Your task to perform on an android device: Add "duracell triple a" to the cart on amazon.com, then select checkout. Image 0: 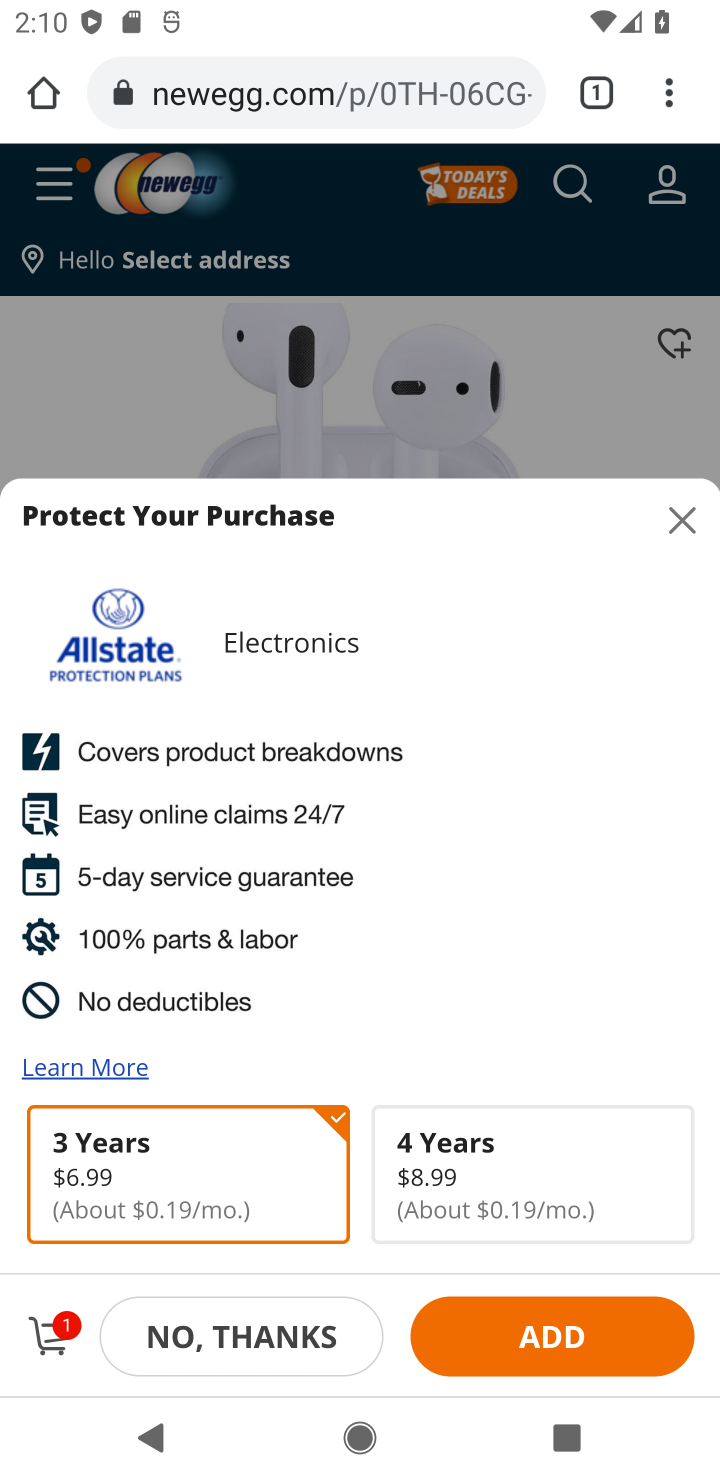
Step 0: click (538, 579)
Your task to perform on an android device: Add "duracell triple a" to the cart on amazon.com, then select checkout. Image 1: 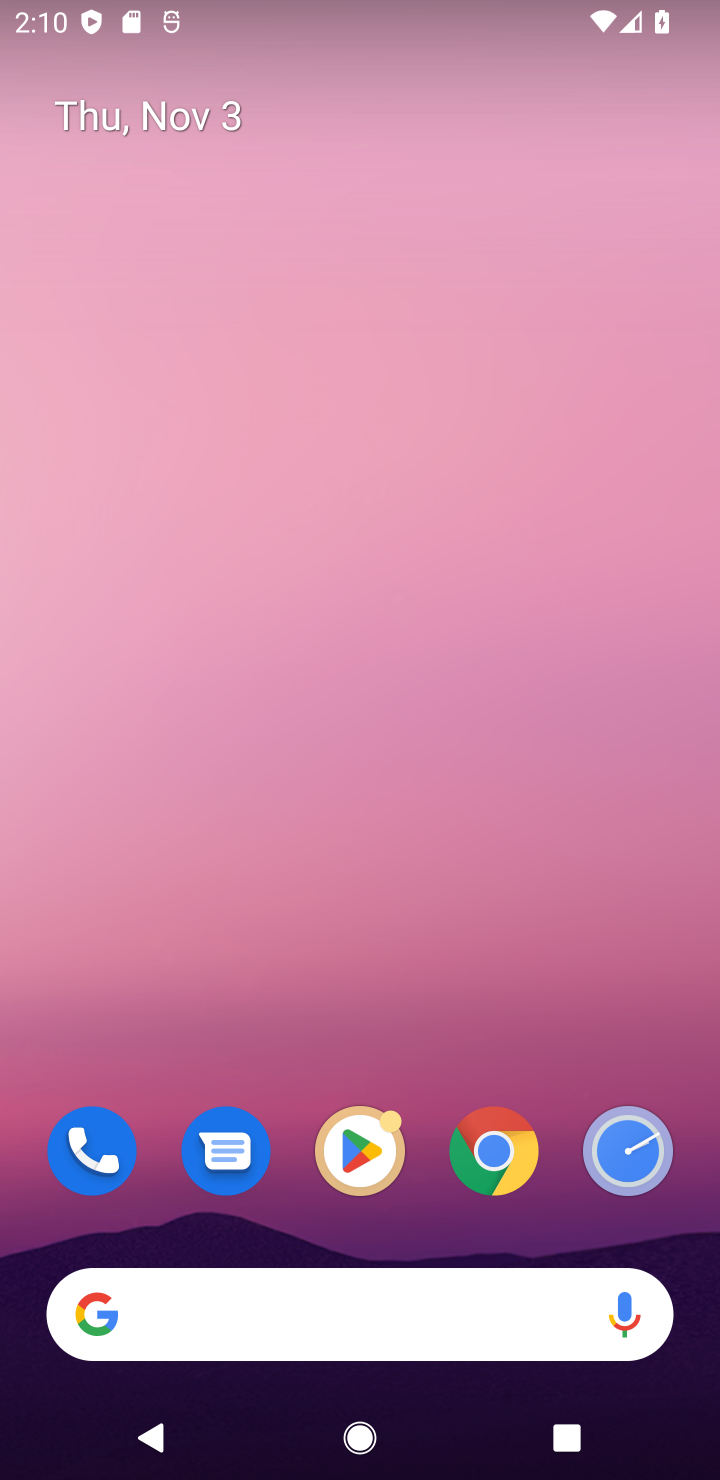
Step 1: click (474, 1151)
Your task to perform on an android device: Add "duracell triple a" to the cart on amazon.com, then select checkout. Image 2: 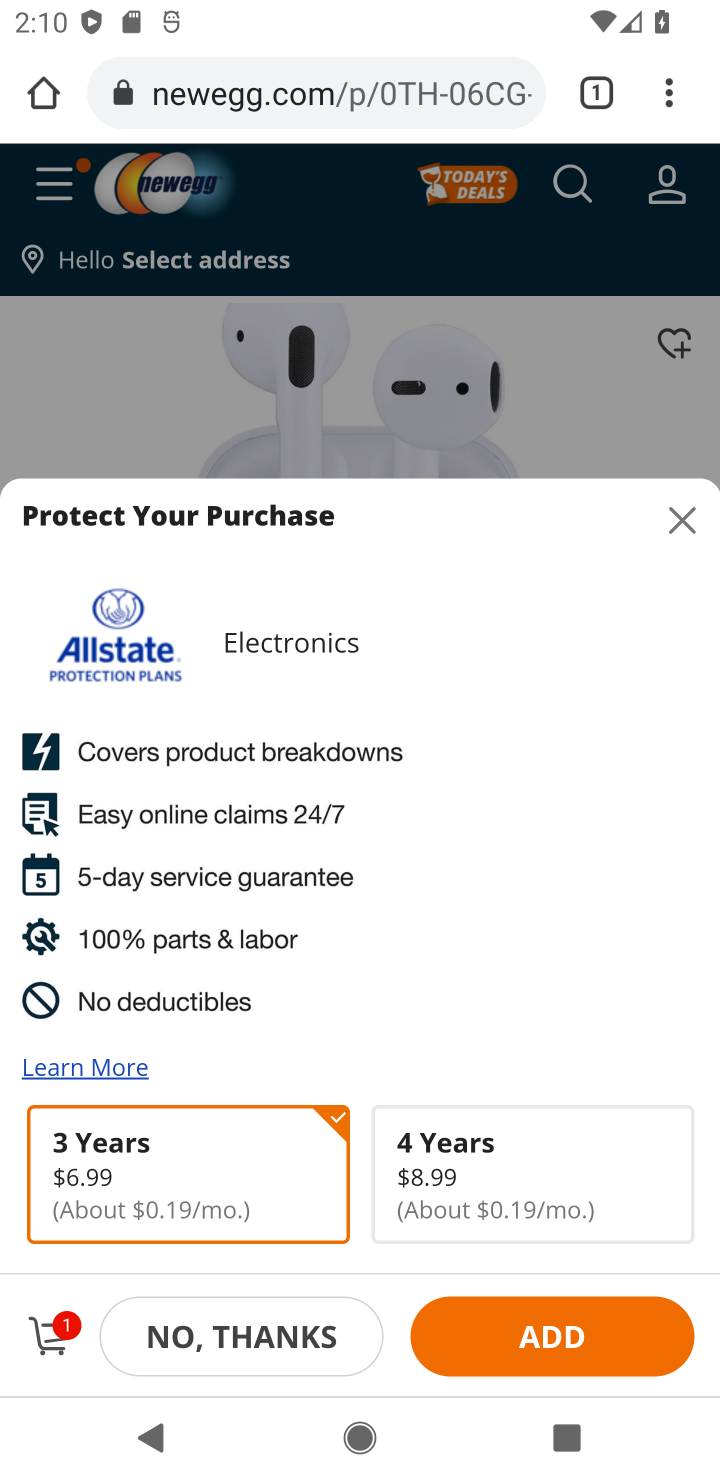
Step 2: click (317, 84)
Your task to perform on an android device: Add "duracell triple a" to the cart on amazon.com, then select checkout. Image 3: 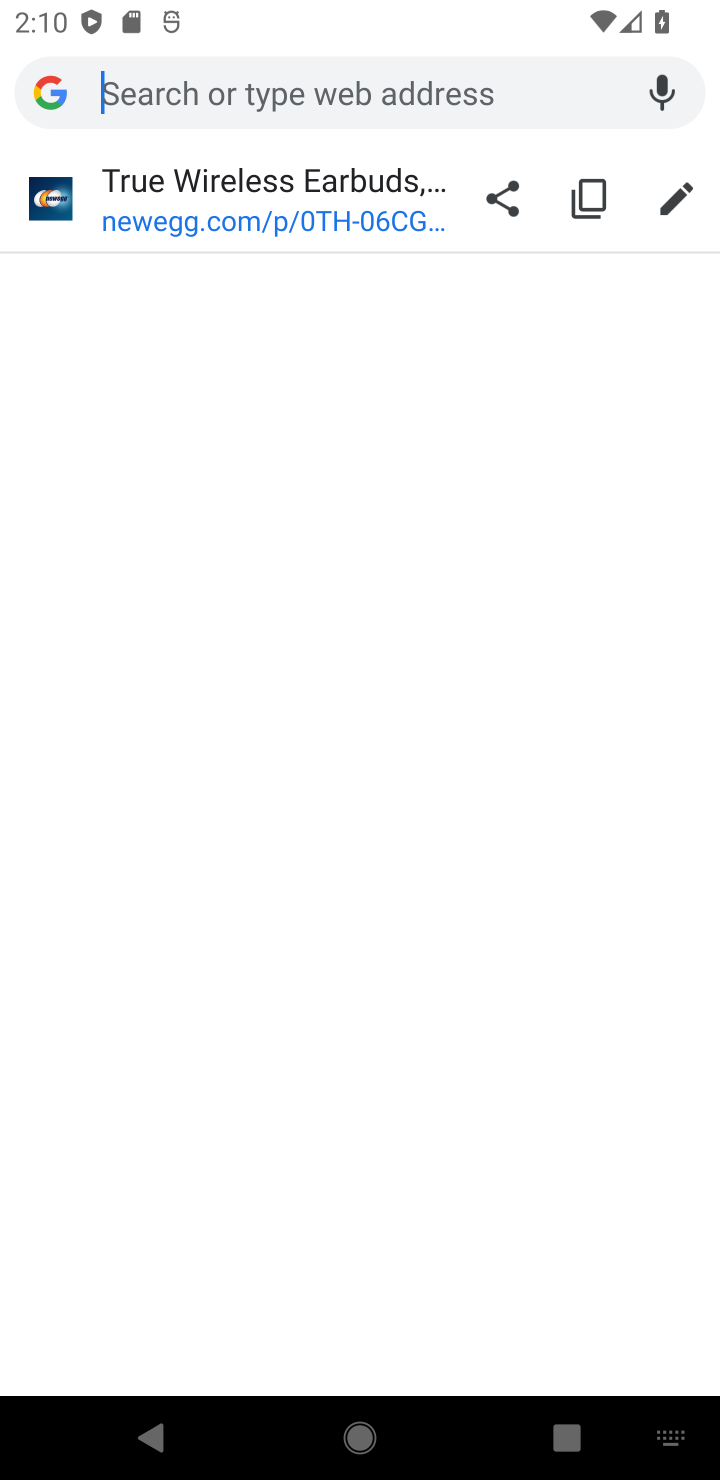
Step 3: type "amazon.com"
Your task to perform on an android device: Add "duracell triple a" to the cart on amazon.com, then select checkout. Image 4: 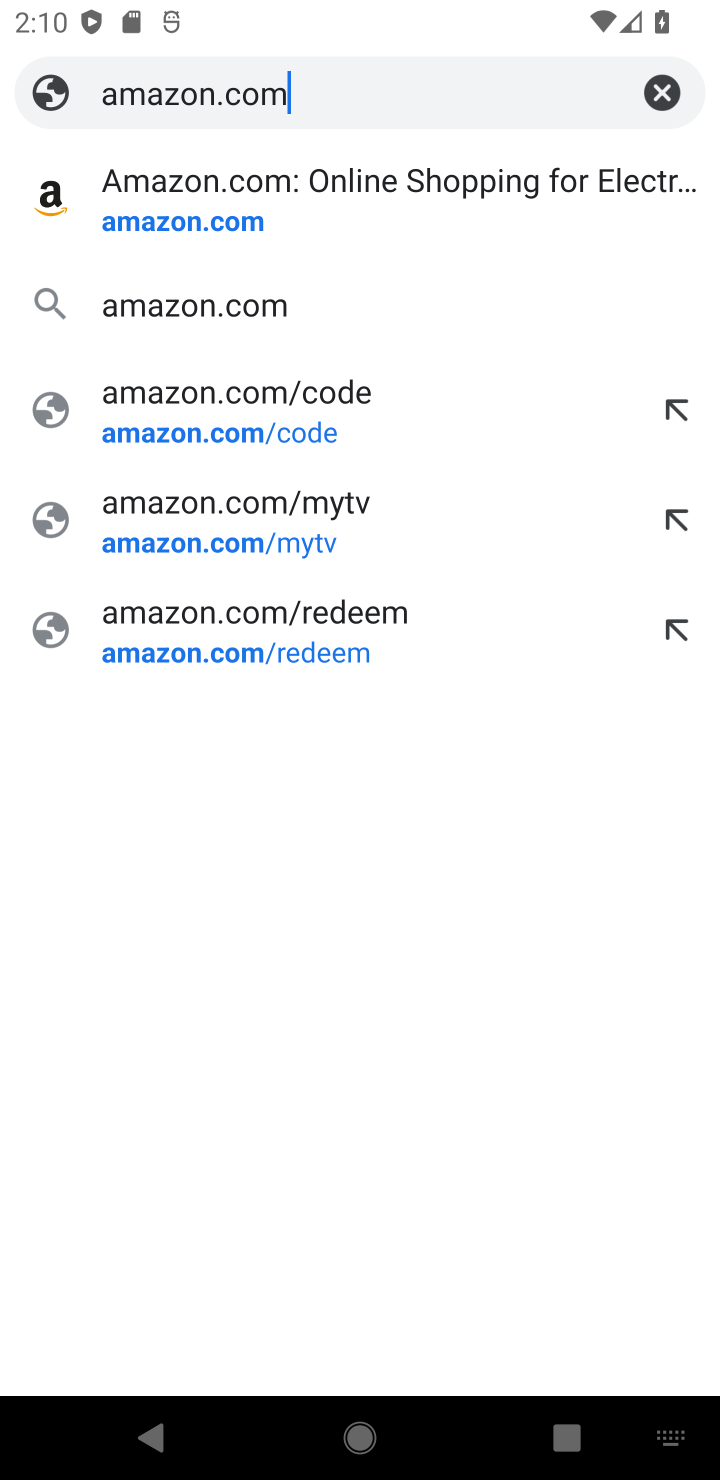
Step 4: click (325, 218)
Your task to perform on an android device: Add "duracell triple a" to the cart on amazon.com, then select checkout. Image 5: 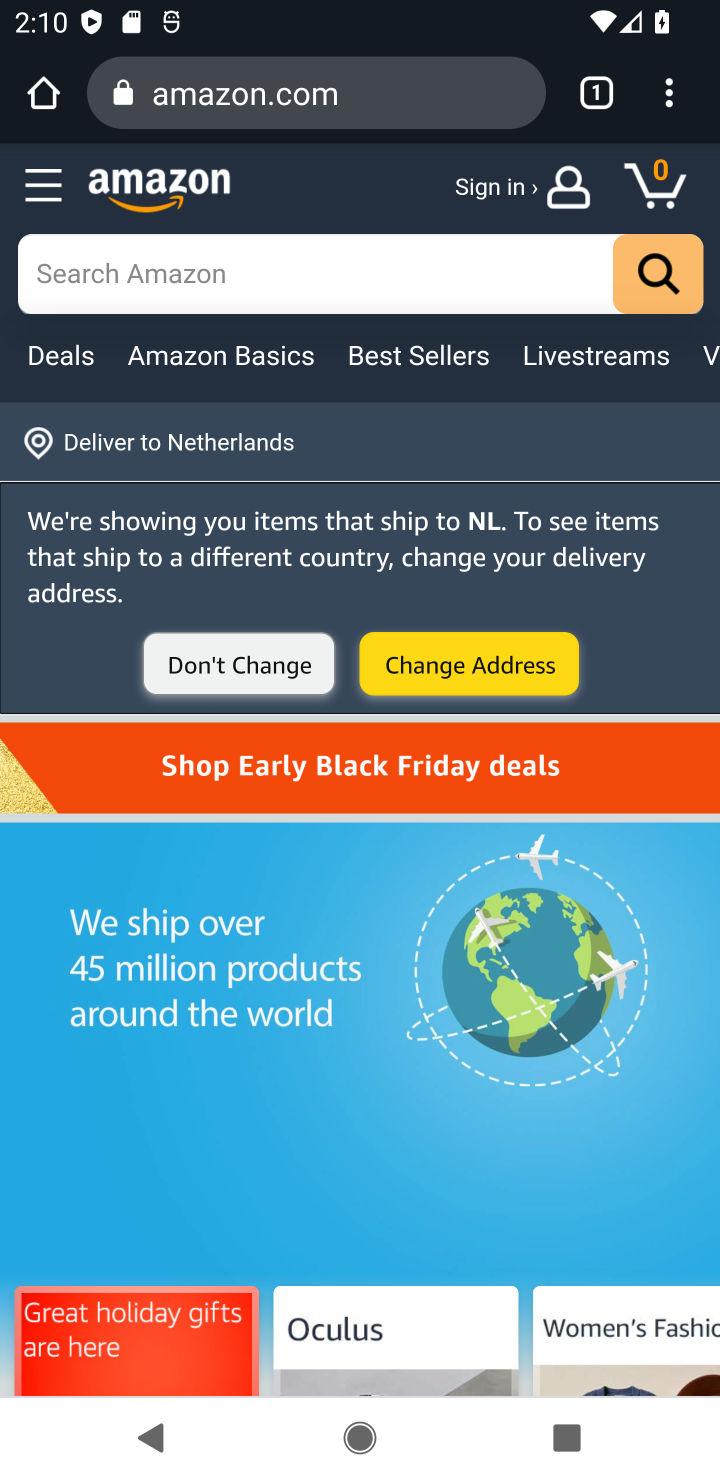
Step 5: click (254, 274)
Your task to perform on an android device: Add "duracell triple a" to the cart on amazon.com, then select checkout. Image 6: 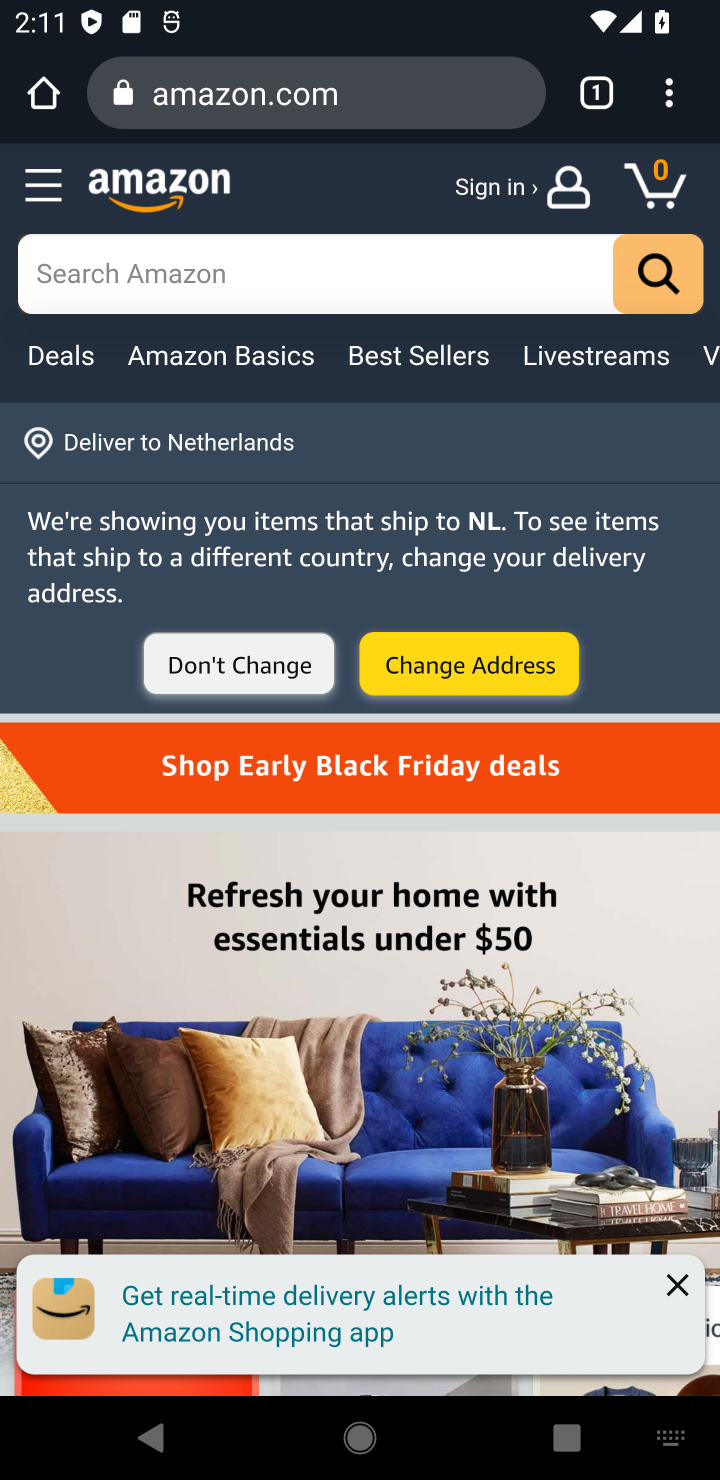
Step 6: type "duracell triple a"
Your task to perform on an android device: Add "duracell triple a" to the cart on amazon.com, then select checkout. Image 7: 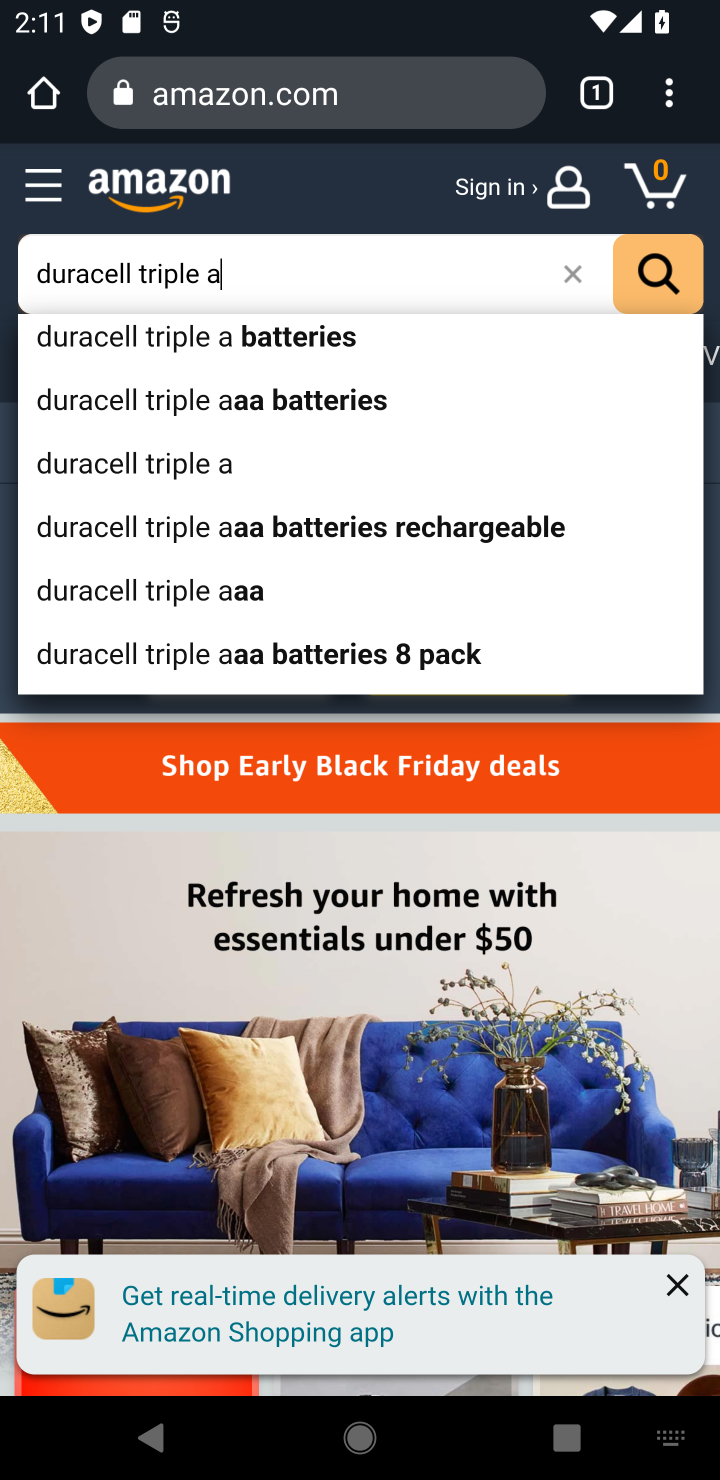
Step 7: click (171, 352)
Your task to perform on an android device: Add "duracell triple a" to the cart on amazon.com, then select checkout. Image 8: 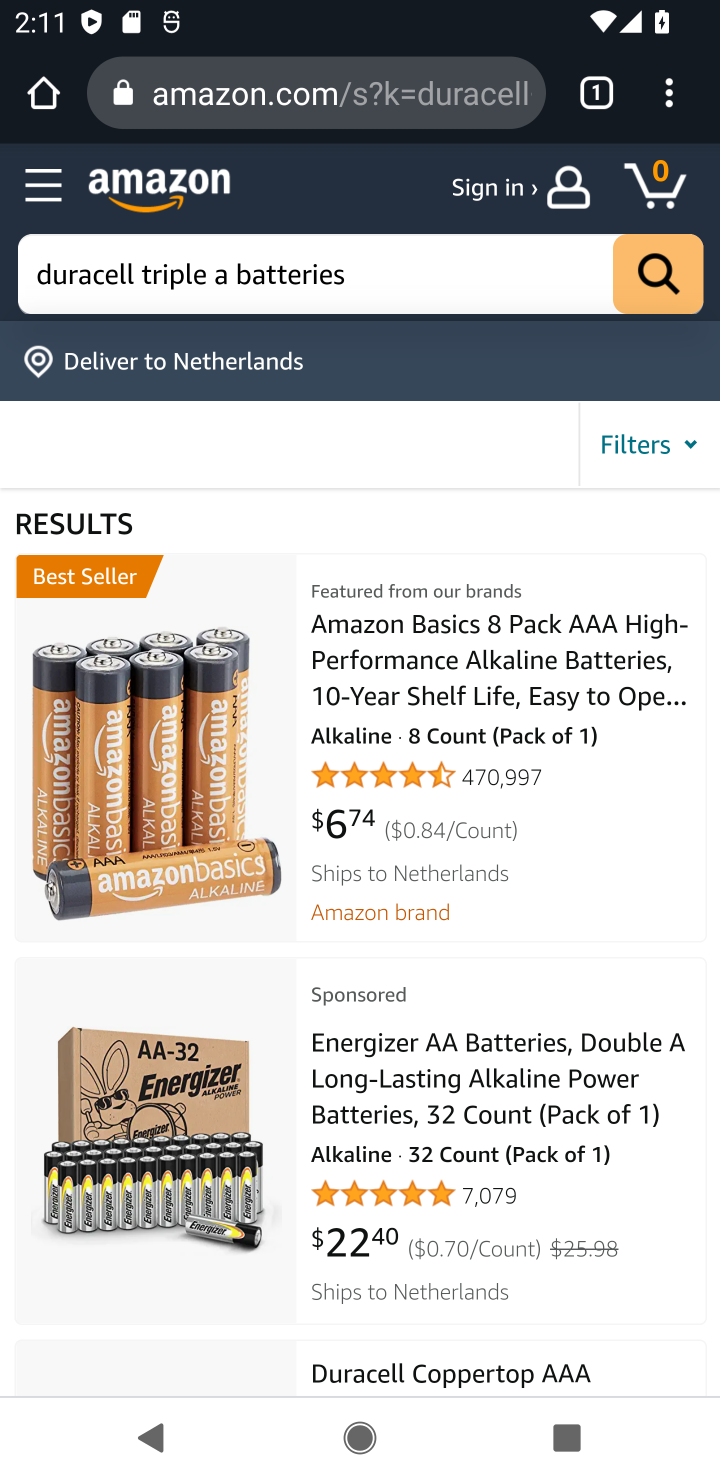
Step 8: click (410, 676)
Your task to perform on an android device: Add "duracell triple a" to the cart on amazon.com, then select checkout. Image 9: 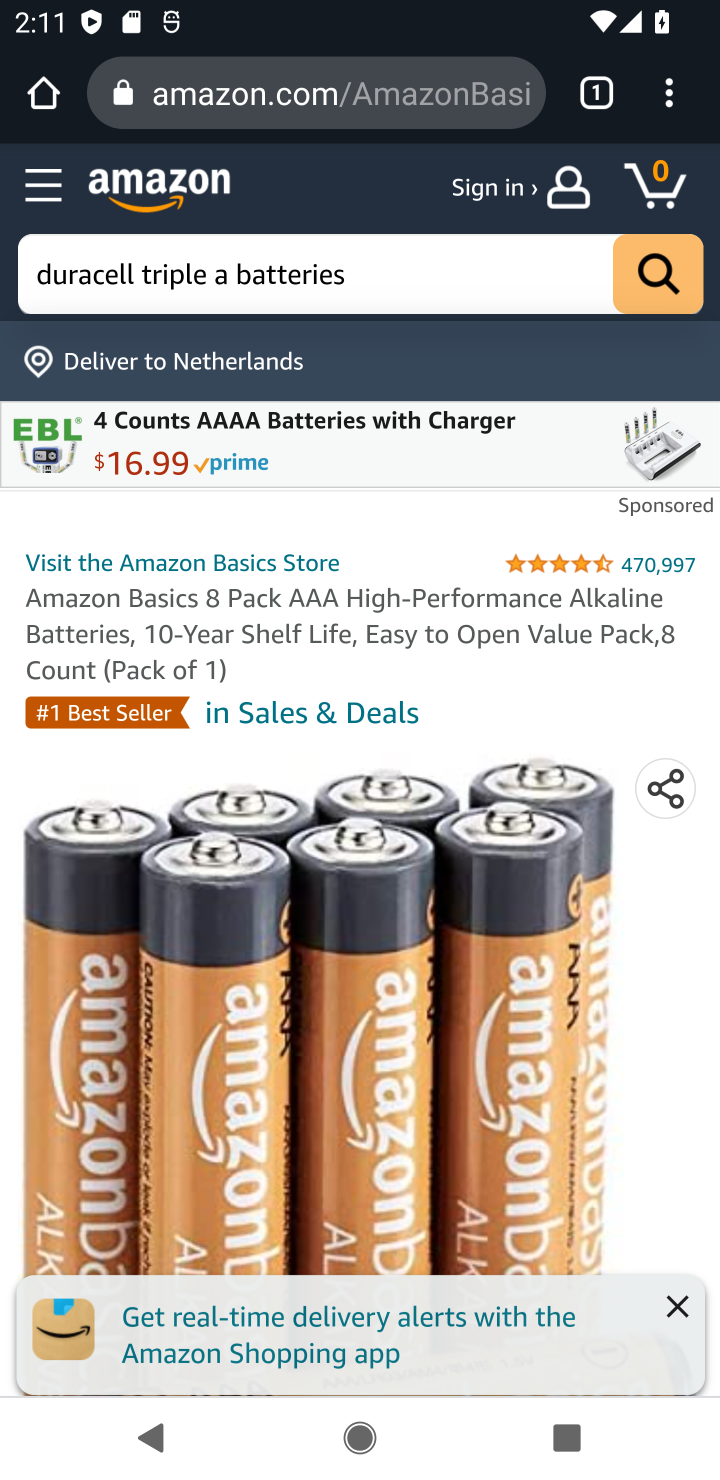
Step 9: drag from (444, 1103) to (415, 594)
Your task to perform on an android device: Add "duracell triple a" to the cart on amazon.com, then select checkout. Image 10: 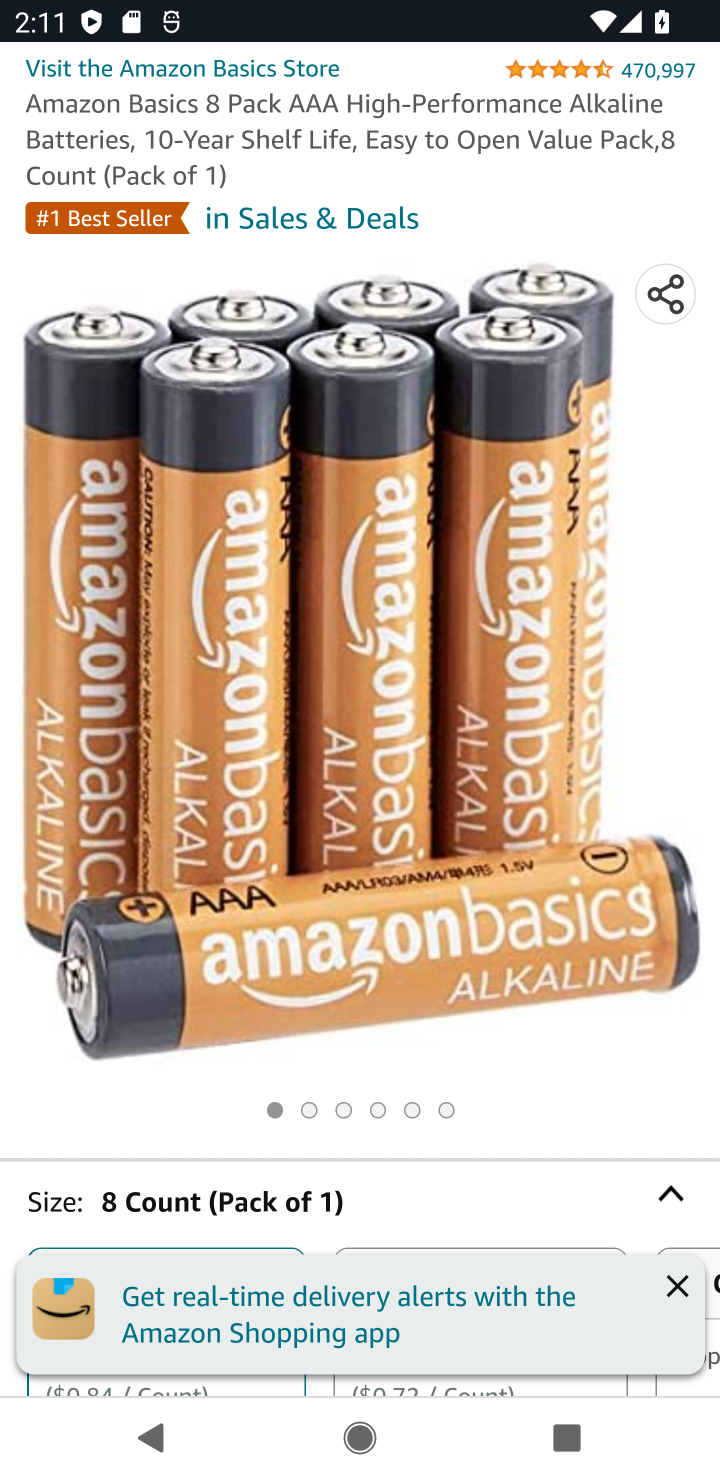
Step 10: drag from (344, 898) to (293, 445)
Your task to perform on an android device: Add "duracell triple a" to the cart on amazon.com, then select checkout. Image 11: 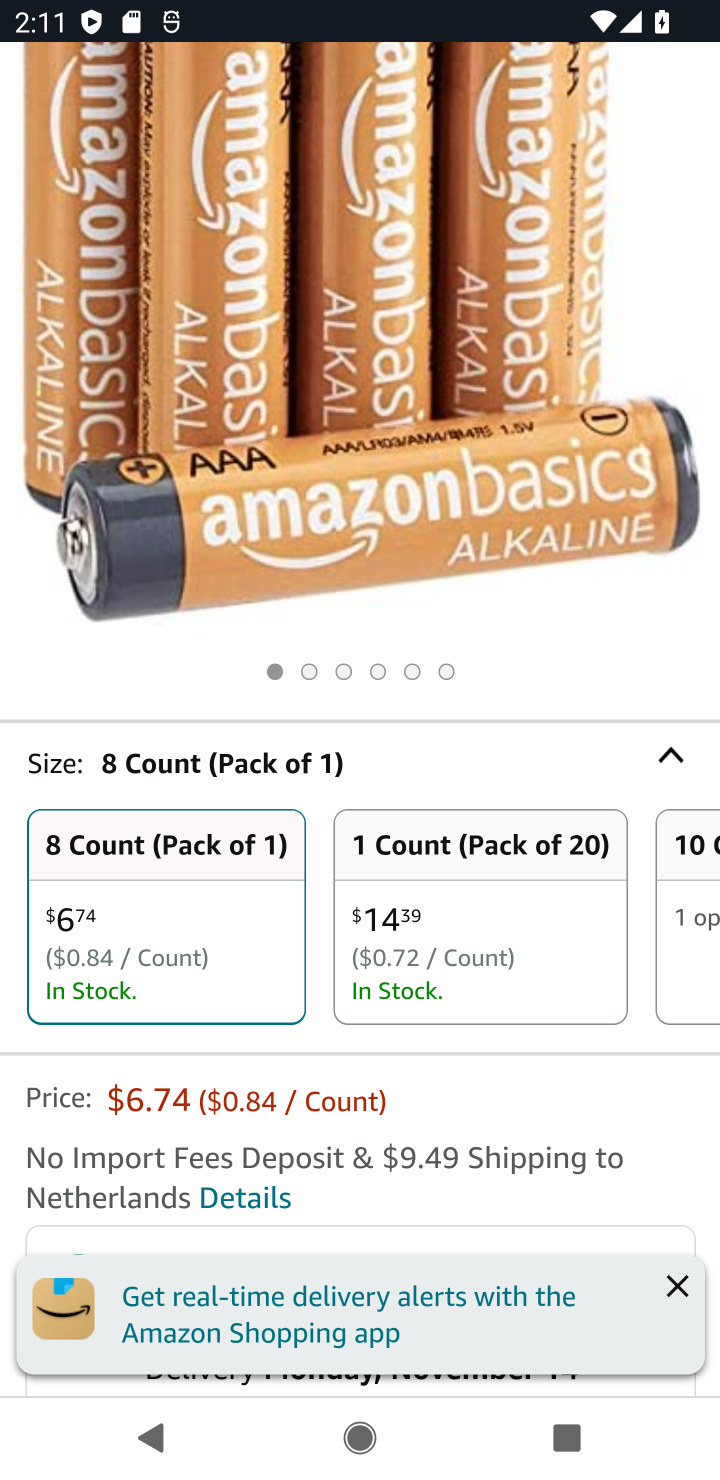
Step 11: drag from (406, 1182) to (375, 287)
Your task to perform on an android device: Add "duracell triple a" to the cart on amazon.com, then select checkout. Image 12: 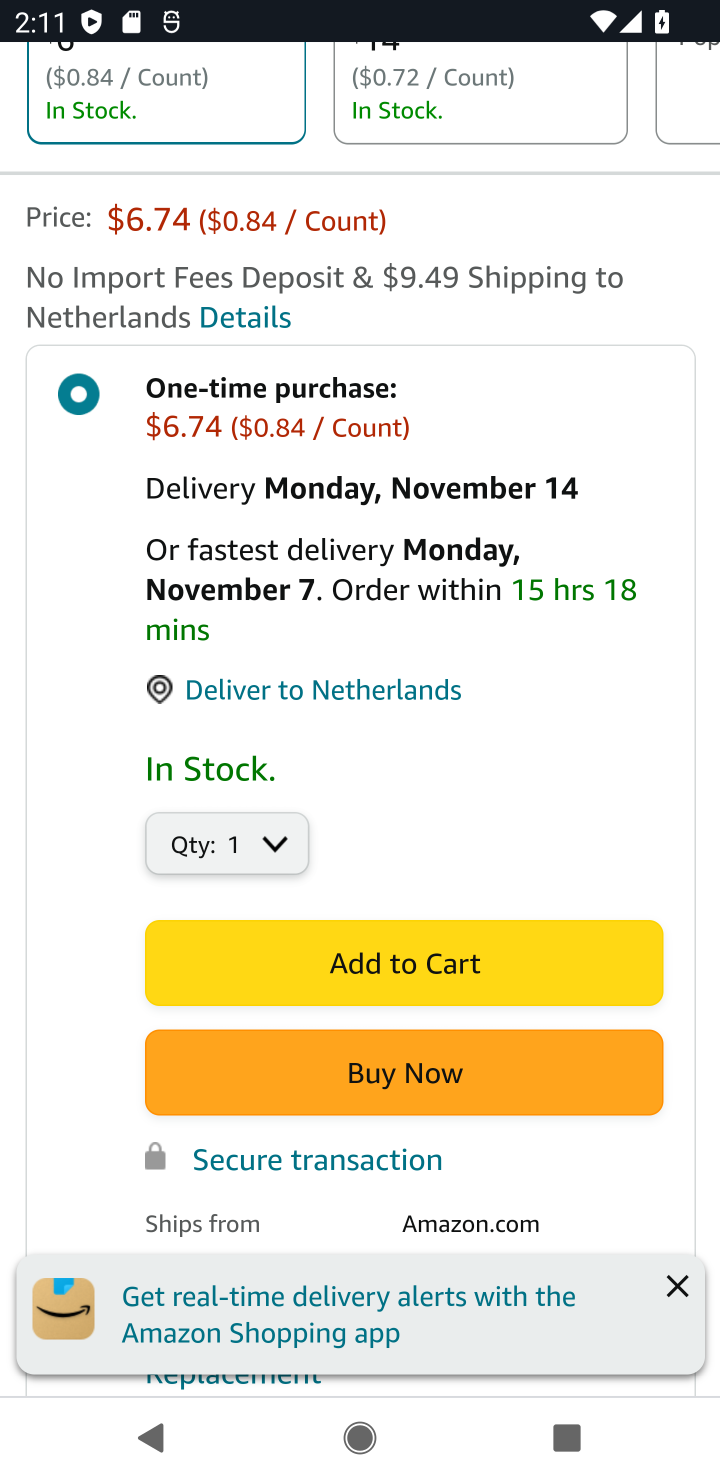
Step 12: click (475, 956)
Your task to perform on an android device: Add "duracell triple a" to the cart on amazon.com, then select checkout. Image 13: 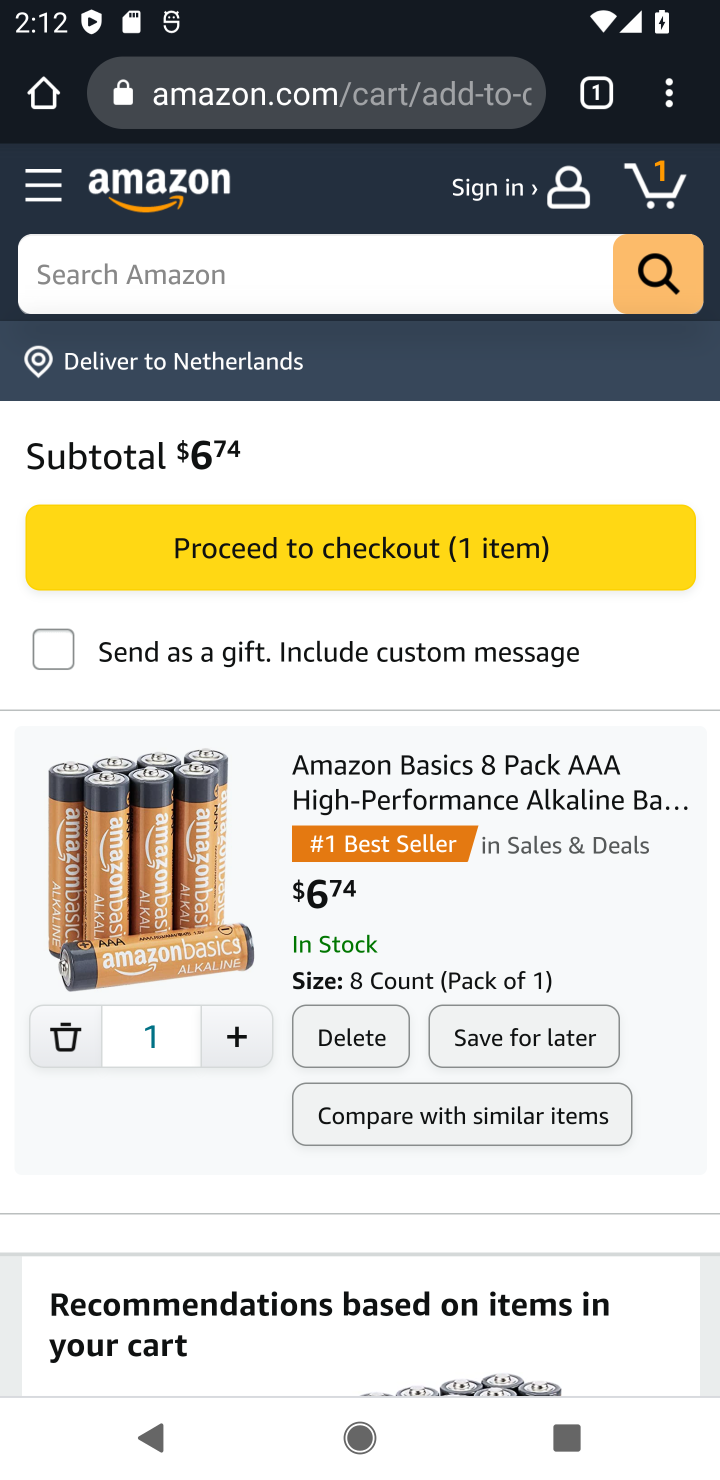
Step 13: click (439, 552)
Your task to perform on an android device: Add "duracell triple a" to the cart on amazon.com, then select checkout. Image 14: 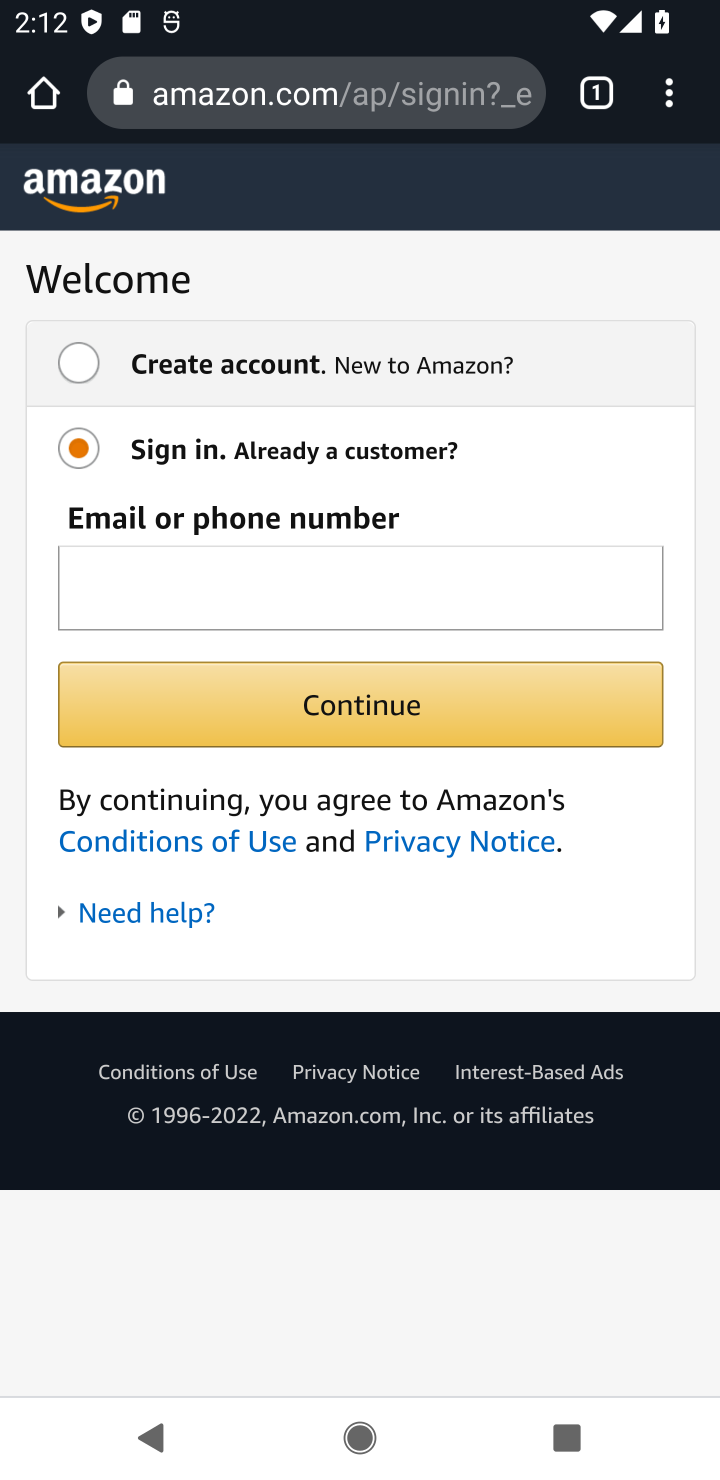
Step 14: task complete